Your task to perform on an android device: toggle sleep mode Image 0: 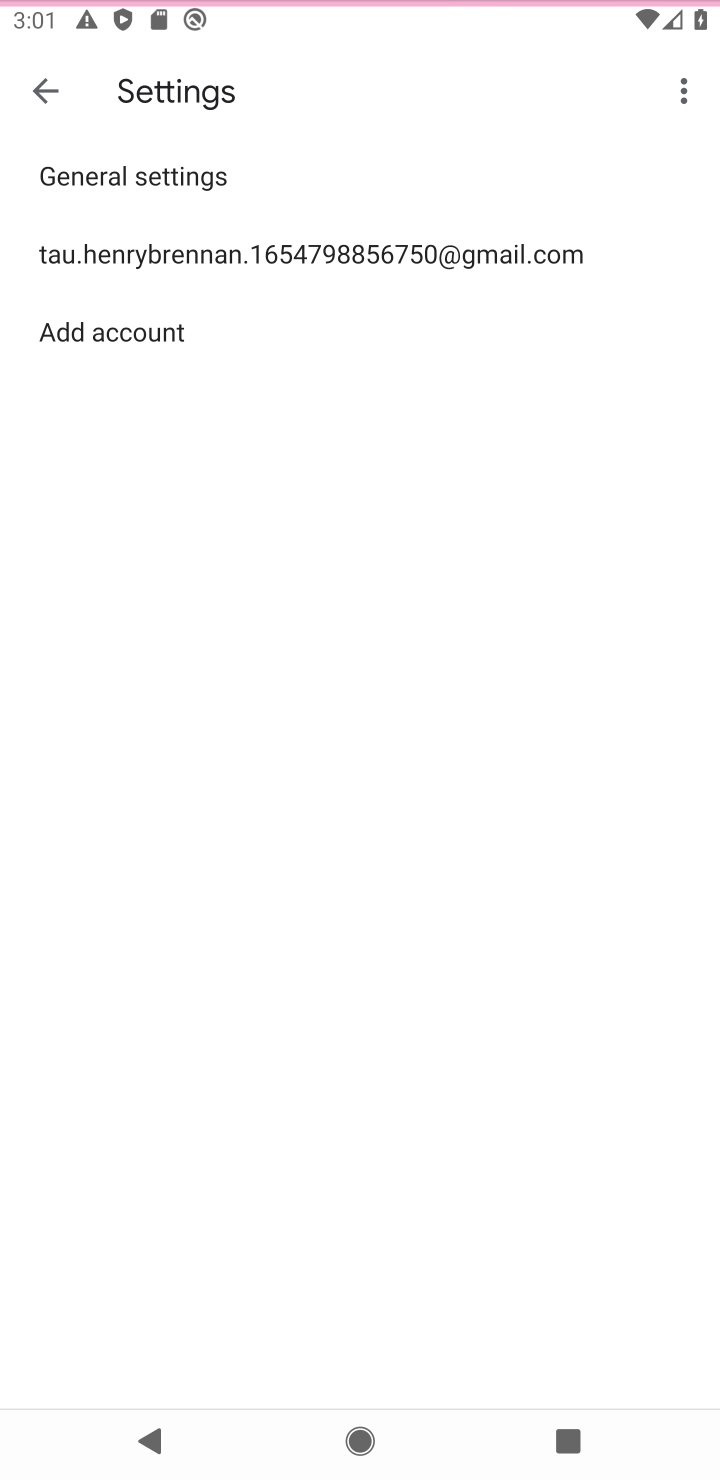
Step 0: press home button
Your task to perform on an android device: toggle sleep mode Image 1: 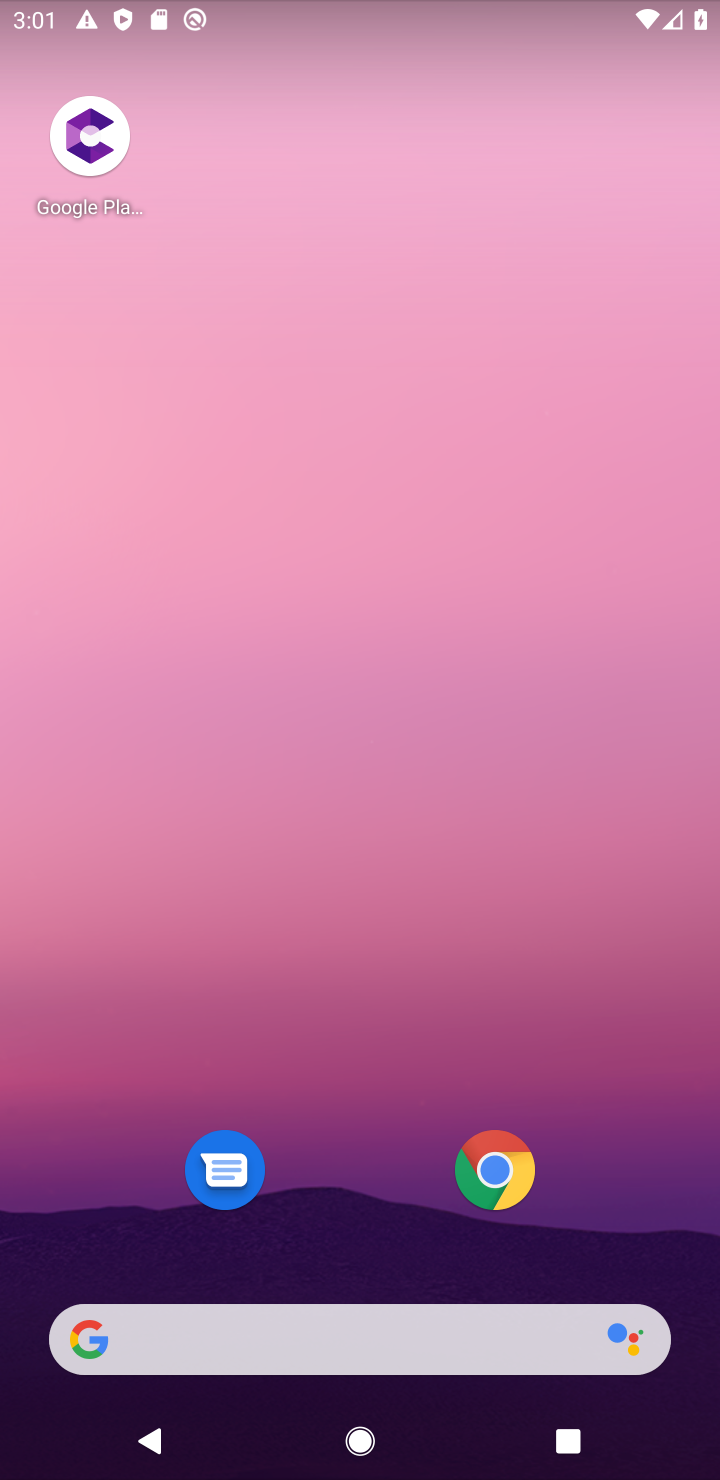
Step 1: drag from (648, 1057) to (552, 114)
Your task to perform on an android device: toggle sleep mode Image 2: 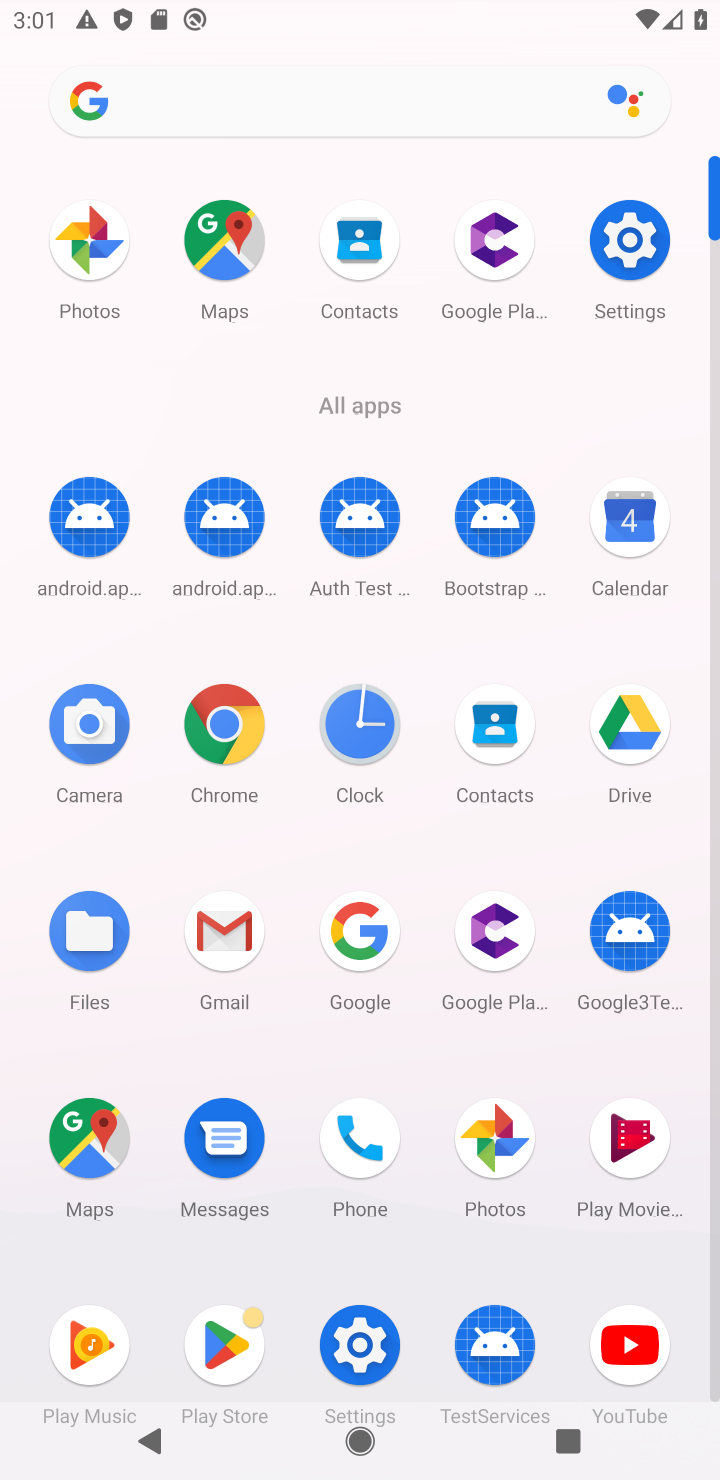
Step 2: click (356, 1346)
Your task to perform on an android device: toggle sleep mode Image 3: 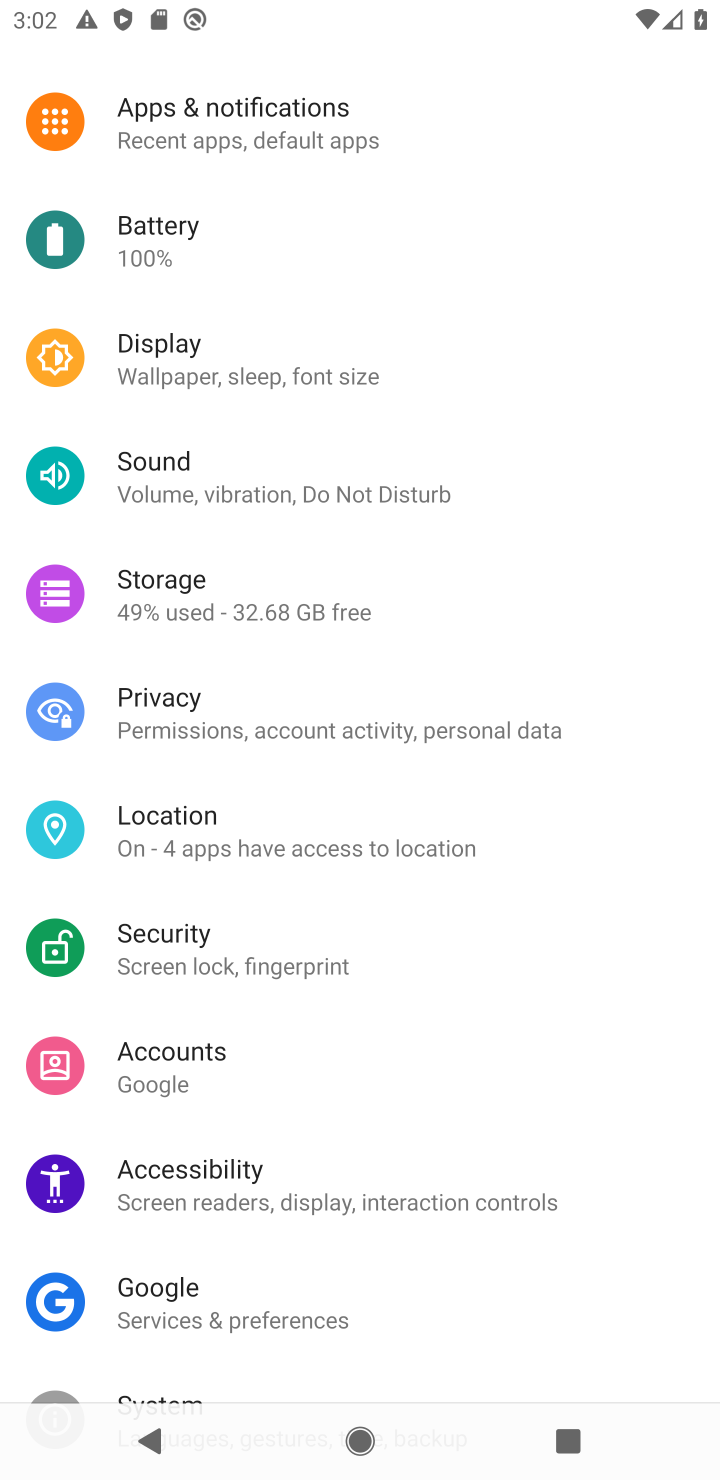
Step 3: drag from (523, 418) to (551, 839)
Your task to perform on an android device: toggle sleep mode Image 4: 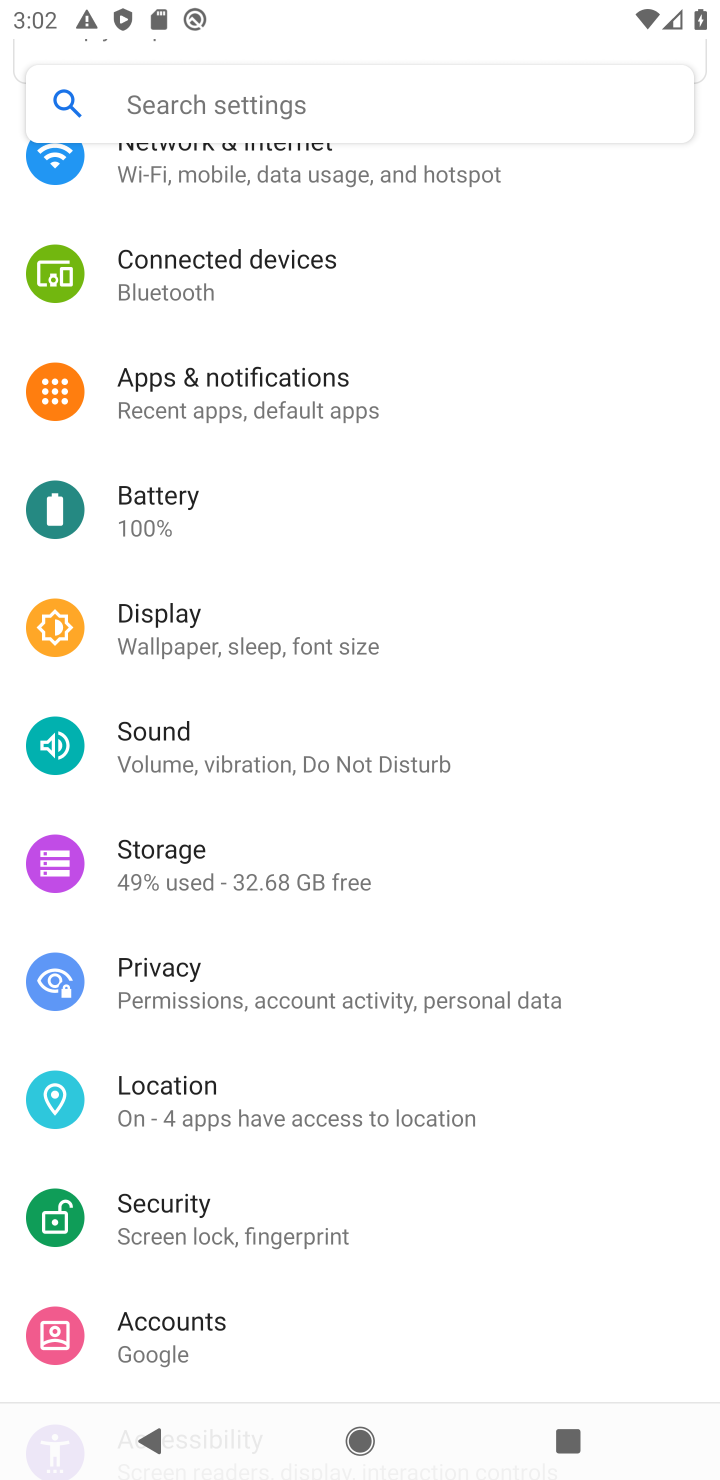
Step 4: click (140, 610)
Your task to perform on an android device: toggle sleep mode Image 5: 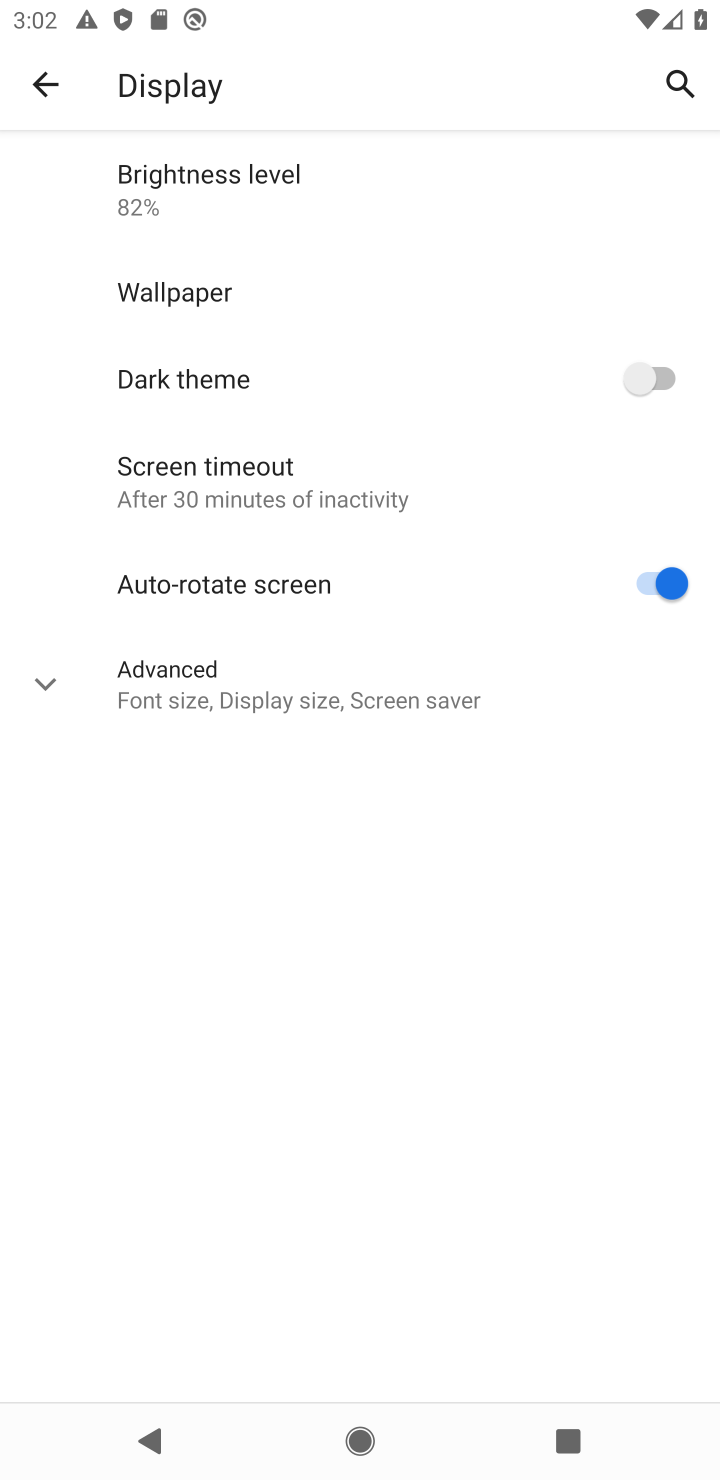
Step 5: click (50, 675)
Your task to perform on an android device: toggle sleep mode Image 6: 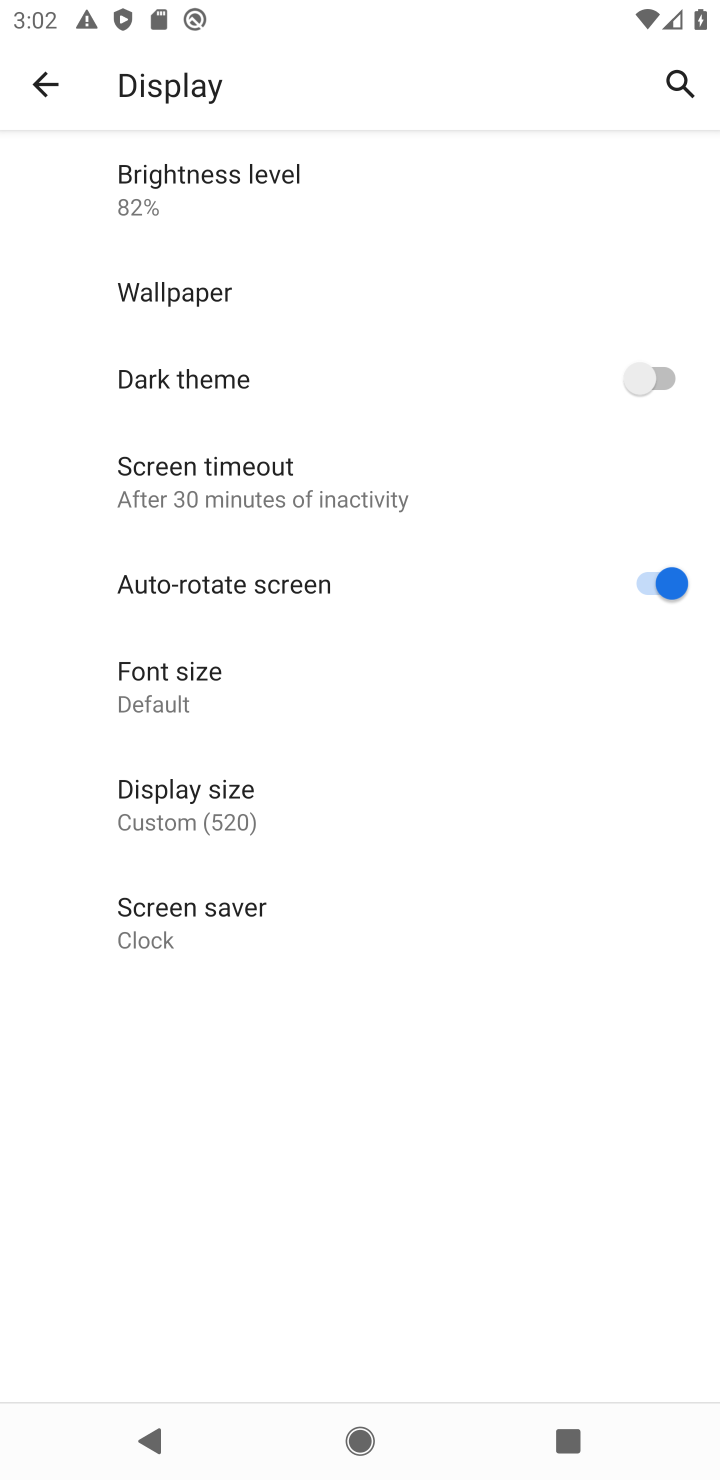
Step 6: task complete